Your task to perform on an android device: Open the calendar app, open the side menu, and click the "Day" option Image 0: 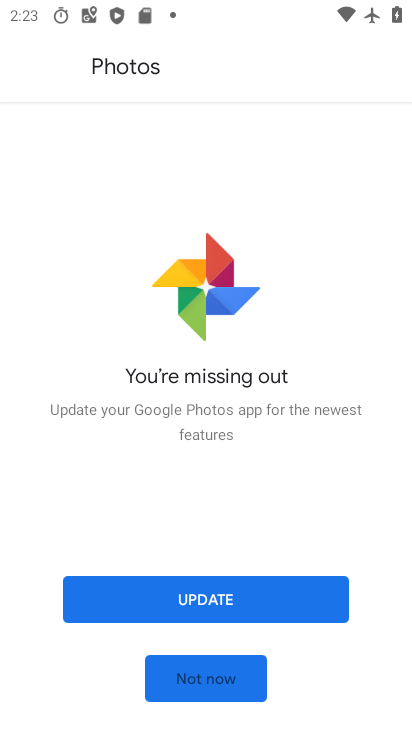
Step 0: press home button
Your task to perform on an android device: Open the calendar app, open the side menu, and click the "Day" option Image 1: 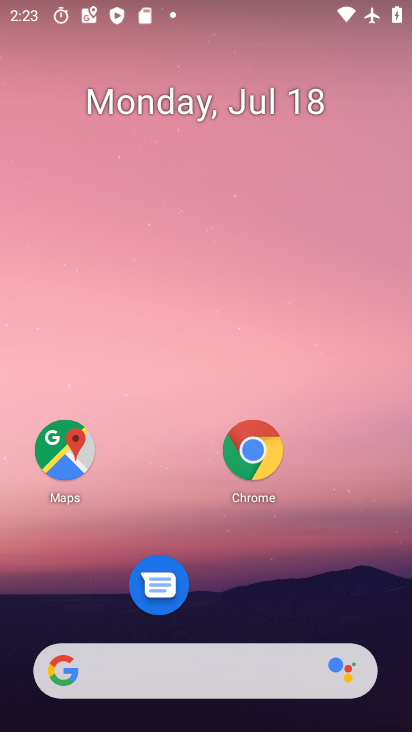
Step 1: drag from (173, 633) to (274, 76)
Your task to perform on an android device: Open the calendar app, open the side menu, and click the "Day" option Image 2: 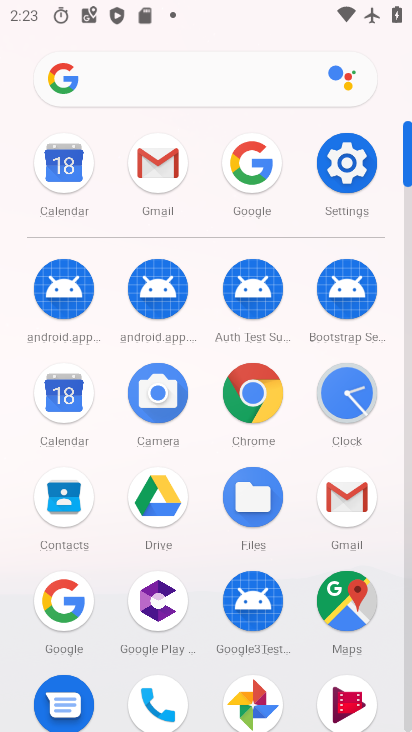
Step 2: click (58, 395)
Your task to perform on an android device: Open the calendar app, open the side menu, and click the "Day" option Image 3: 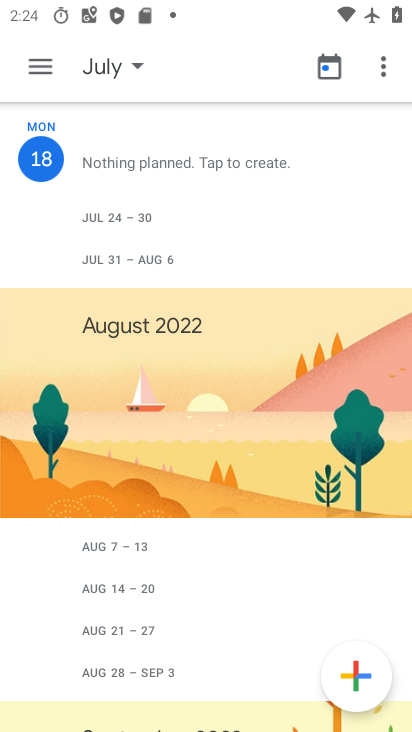
Step 3: click (39, 68)
Your task to perform on an android device: Open the calendar app, open the side menu, and click the "Day" option Image 4: 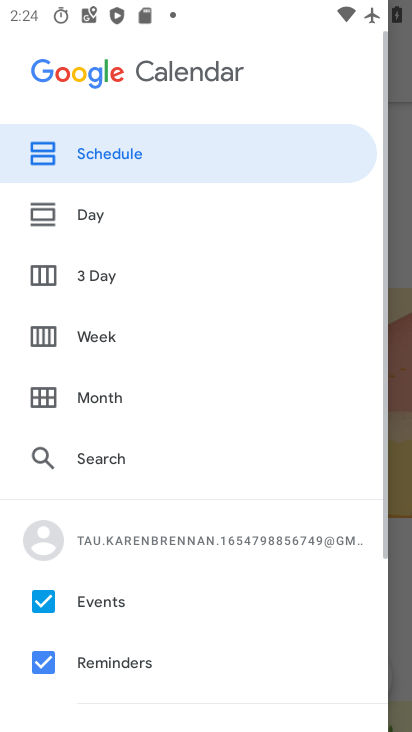
Step 4: click (94, 217)
Your task to perform on an android device: Open the calendar app, open the side menu, and click the "Day" option Image 5: 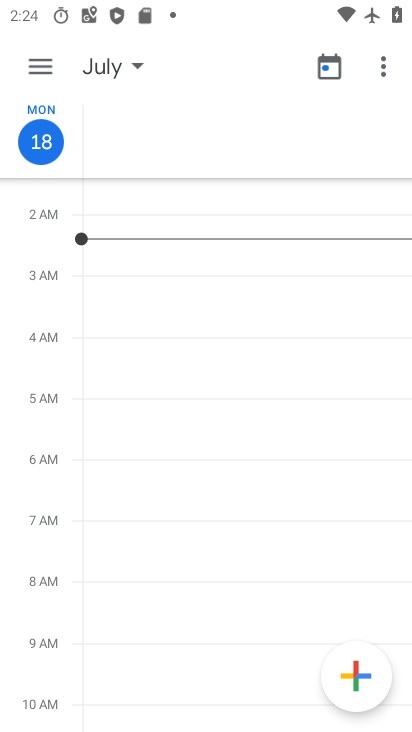
Step 5: task complete